Your task to perform on an android device: Search for Mexican restaurants on Maps Image 0: 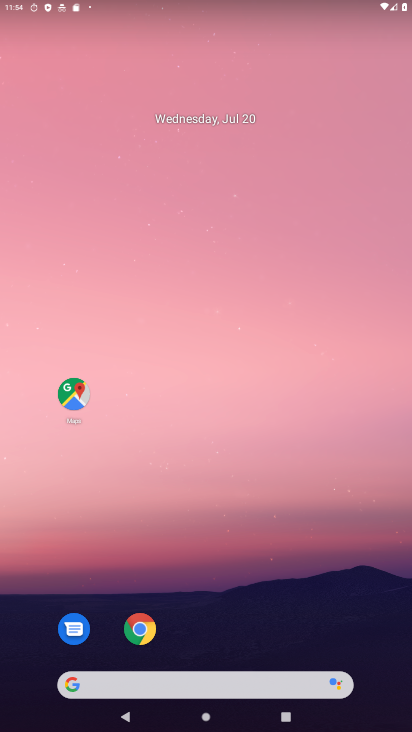
Step 0: drag from (214, 696) to (232, 83)
Your task to perform on an android device: Search for Mexican restaurants on Maps Image 1: 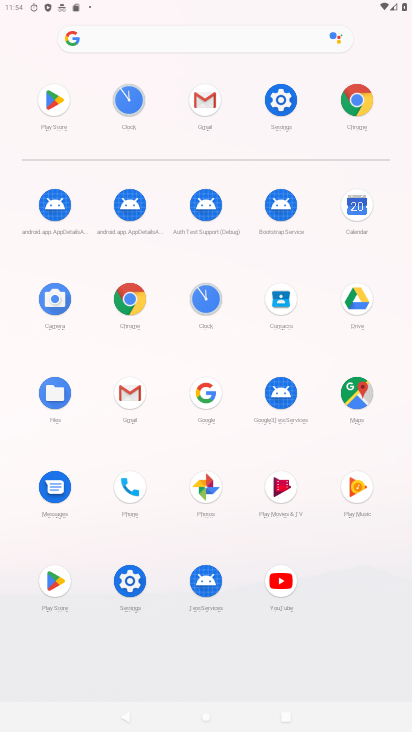
Step 1: click (361, 393)
Your task to perform on an android device: Search for Mexican restaurants on Maps Image 2: 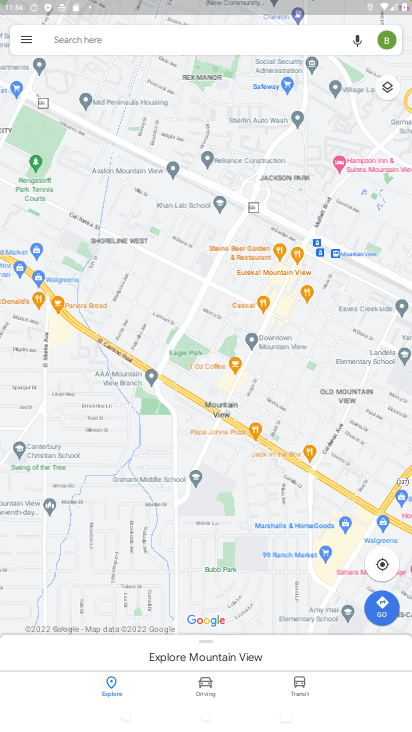
Step 2: click (232, 36)
Your task to perform on an android device: Search for Mexican restaurants on Maps Image 3: 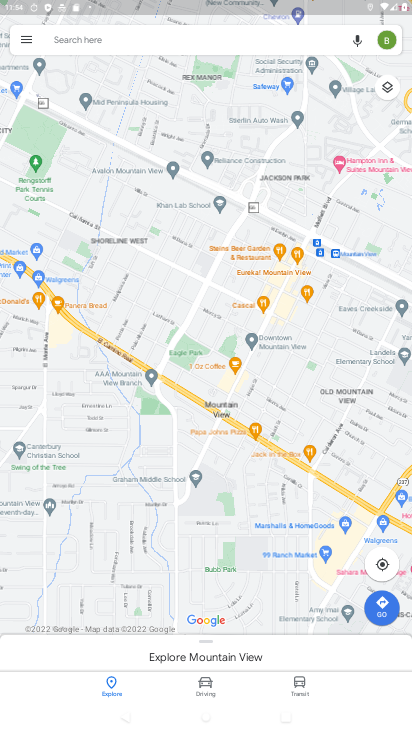
Step 3: click (232, 36)
Your task to perform on an android device: Search for Mexican restaurants on Maps Image 4: 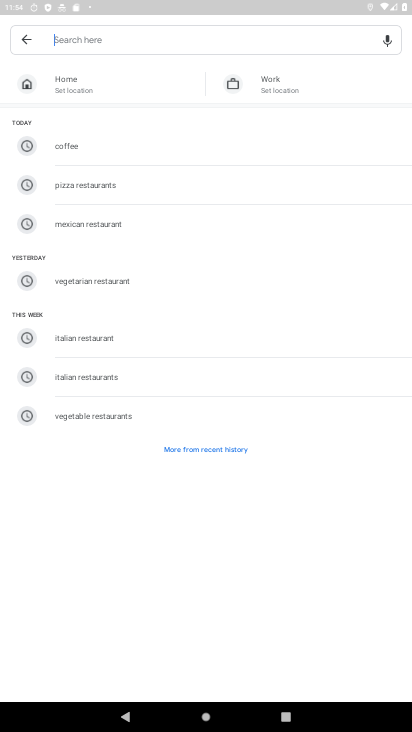
Step 4: click (133, 222)
Your task to perform on an android device: Search for Mexican restaurants on Maps Image 5: 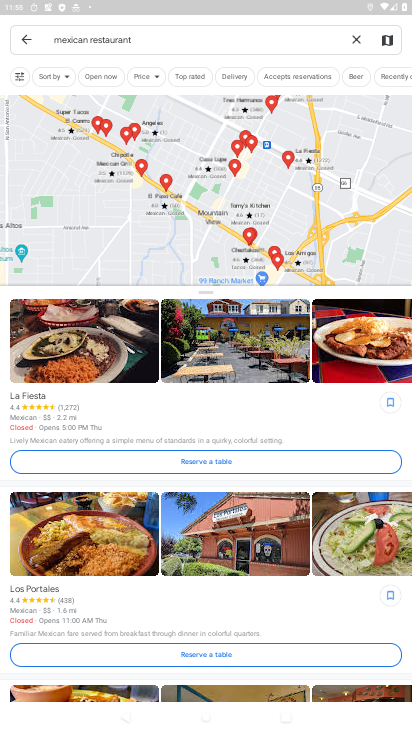
Step 5: task complete